Your task to perform on an android device: clear history in the chrome app Image 0: 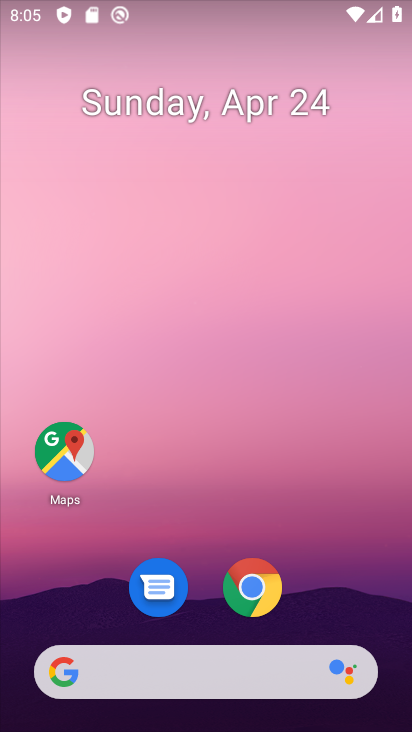
Step 0: click (267, 581)
Your task to perform on an android device: clear history in the chrome app Image 1: 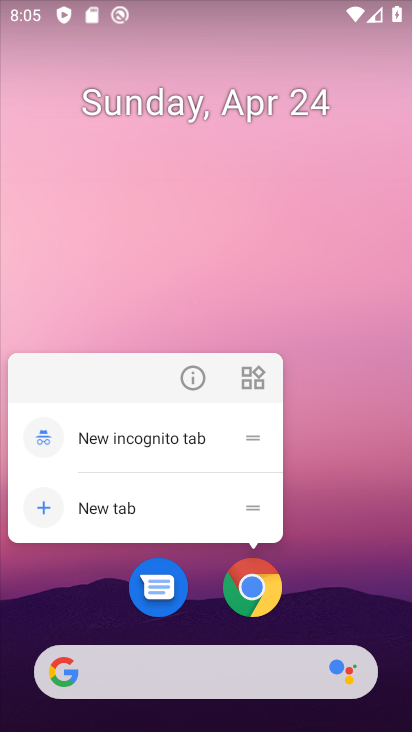
Step 1: click (250, 593)
Your task to perform on an android device: clear history in the chrome app Image 2: 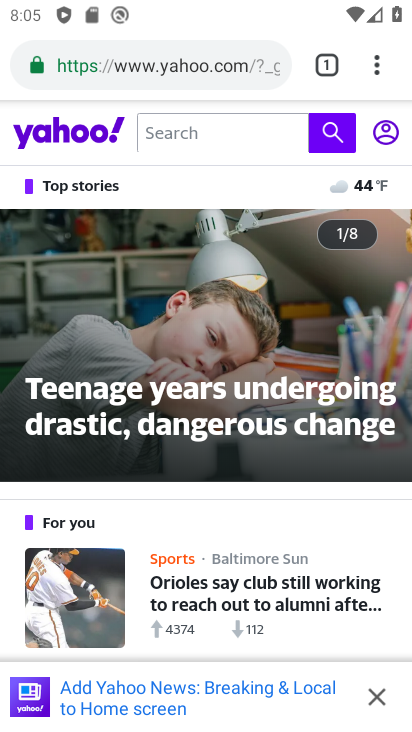
Step 2: drag from (377, 70) to (173, 390)
Your task to perform on an android device: clear history in the chrome app Image 3: 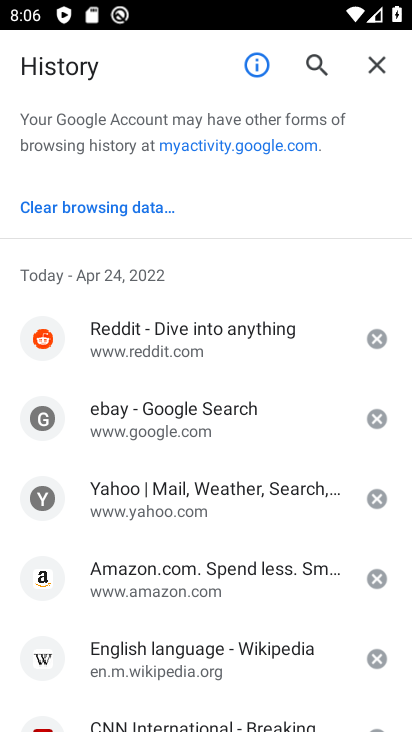
Step 3: click (100, 207)
Your task to perform on an android device: clear history in the chrome app Image 4: 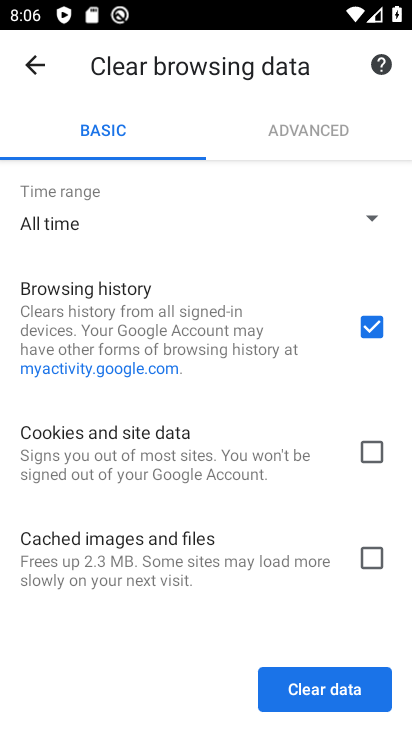
Step 4: click (330, 703)
Your task to perform on an android device: clear history in the chrome app Image 5: 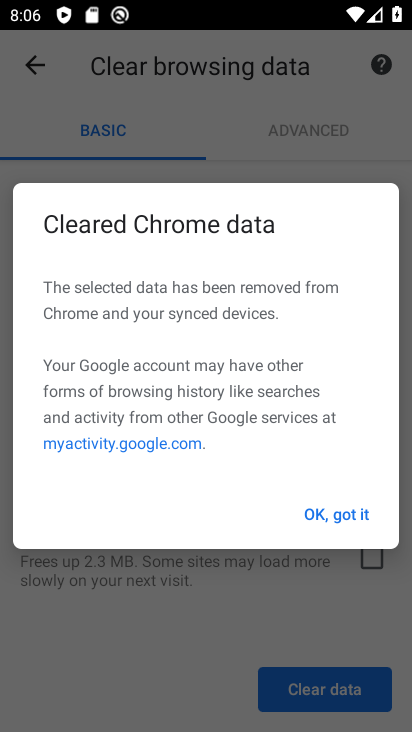
Step 5: click (347, 523)
Your task to perform on an android device: clear history in the chrome app Image 6: 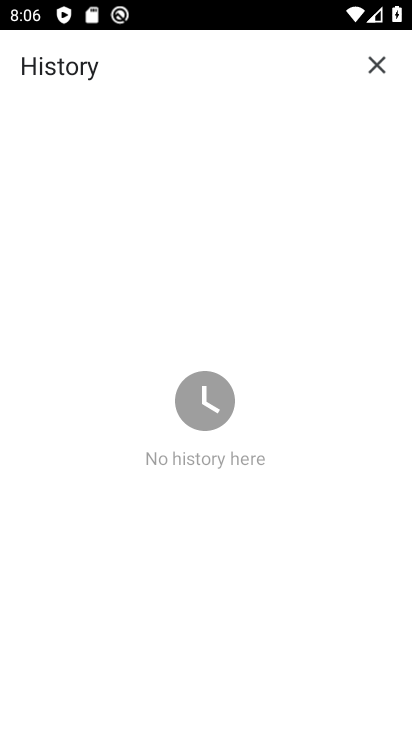
Step 6: task complete